Your task to perform on an android device: What is the recent news? Image 0: 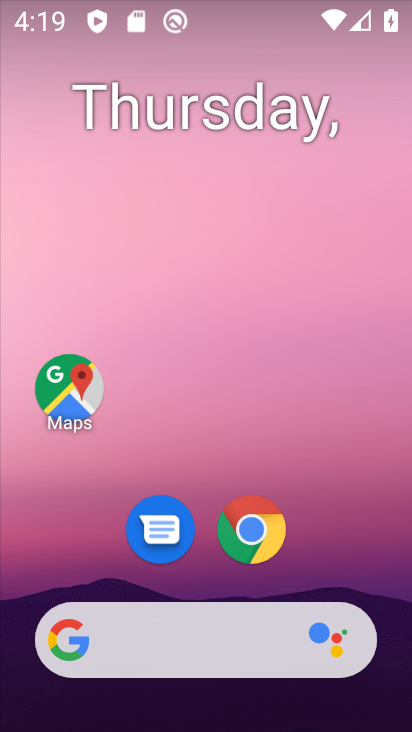
Step 0: drag from (209, 722) to (208, 70)
Your task to perform on an android device: What is the recent news? Image 1: 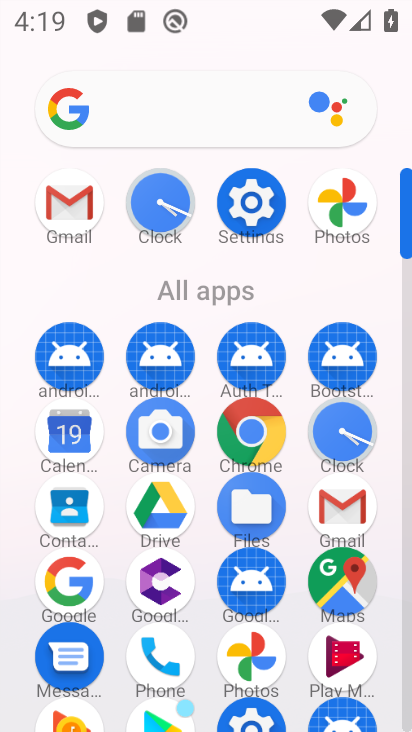
Step 1: click (81, 585)
Your task to perform on an android device: What is the recent news? Image 2: 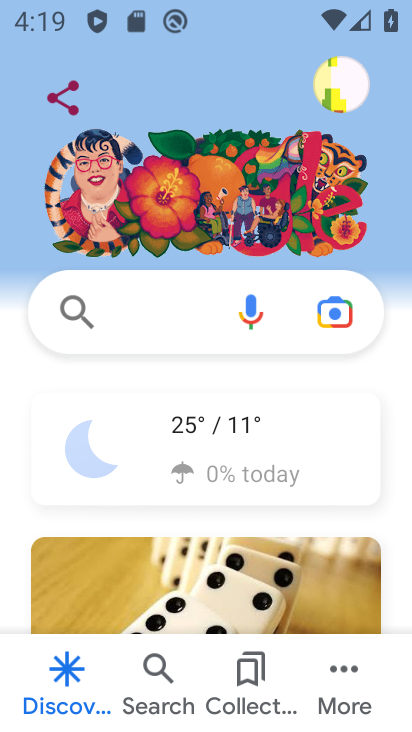
Step 2: task complete